Your task to perform on an android device: turn pop-ups on in chrome Image 0: 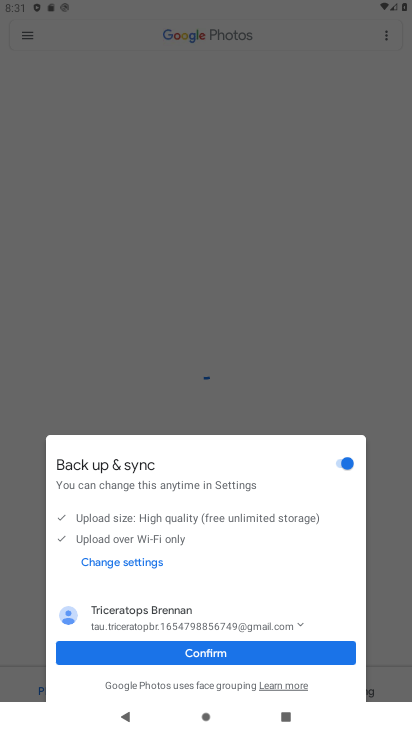
Step 0: press home button
Your task to perform on an android device: turn pop-ups on in chrome Image 1: 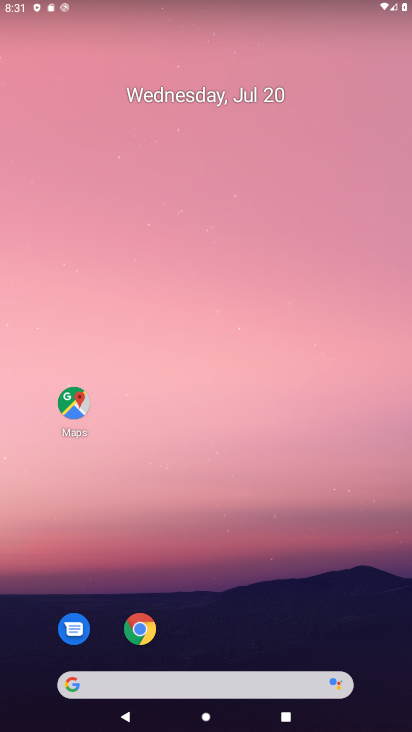
Step 1: click (157, 630)
Your task to perform on an android device: turn pop-ups on in chrome Image 2: 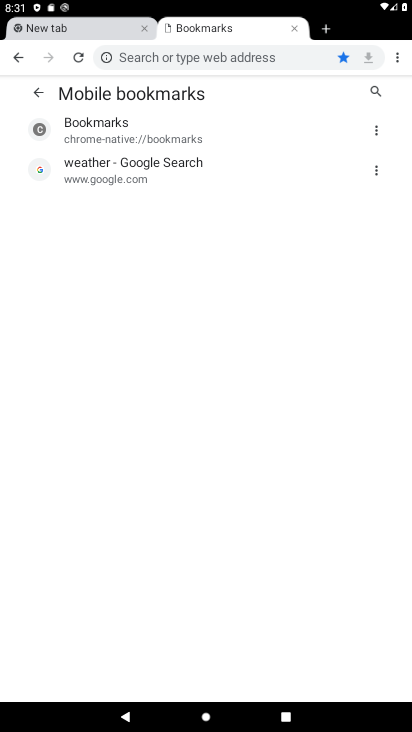
Step 2: click (399, 58)
Your task to perform on an android device: turn pop-ups on in chrome Image 3: 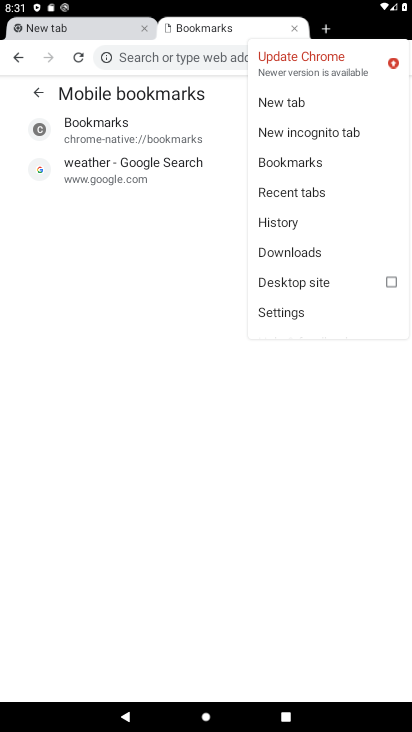
Step 3: click (287, 308)
Your task to perform on an android device: turn pop-ups on in chrome Image 4: 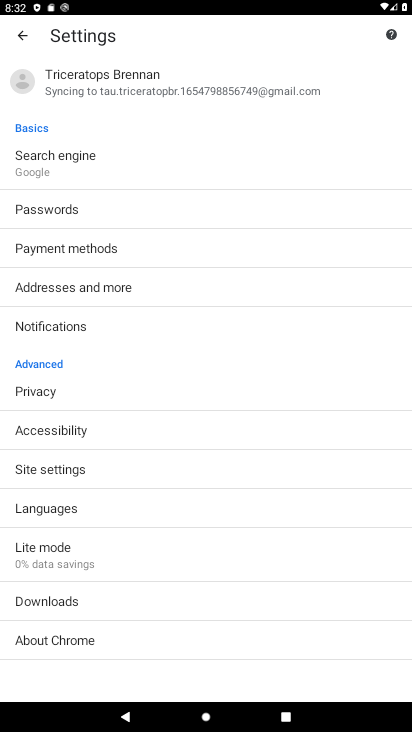
Step 4: click (46, 463)
Your task to perform on an android device: turn pop-ups on in chrome Image 5: 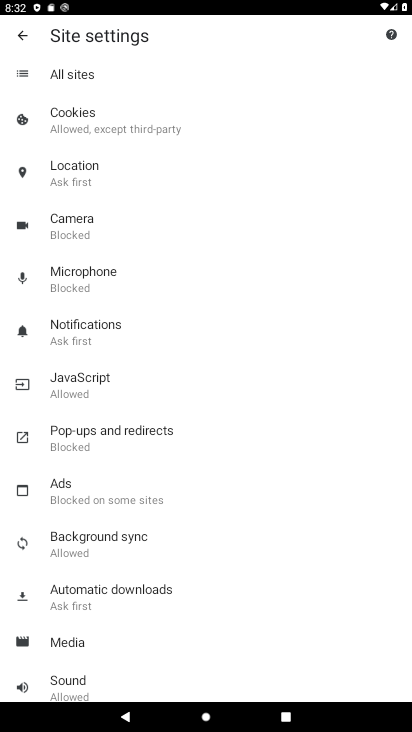
Step 5: click (172, 432)
Your task to perform on an android device: turn pop-ups on in chrome Image 6: 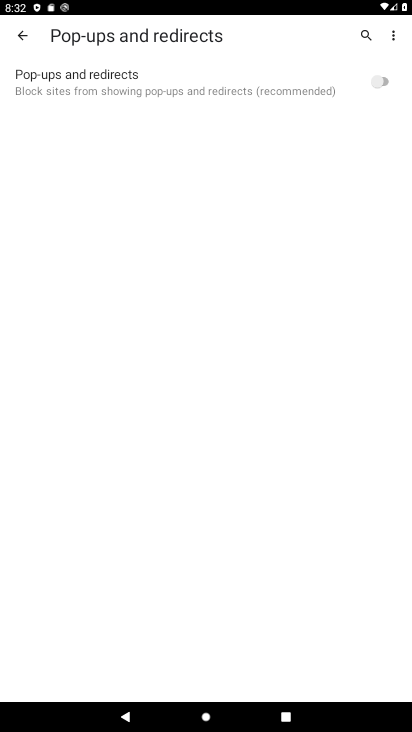
Step 6: click (391, 73)
Your task to perform on an android device: turn pop-ups on in chrome Image 7: 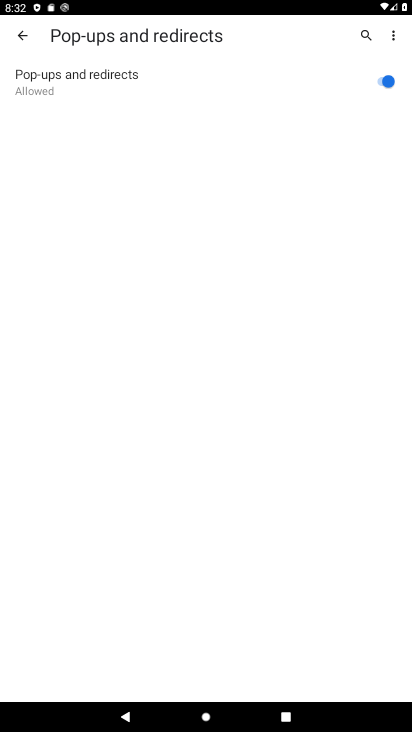
Step 7: task complete